Your task to perform on an android device: turn on javascript in the chrome app Image 0: 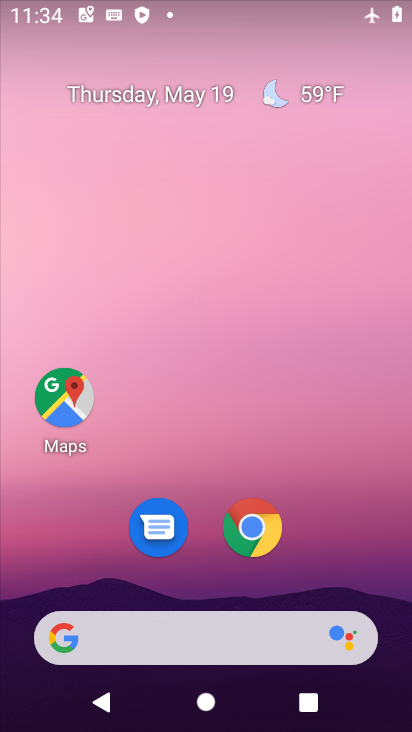
Step 0: drag from (400, 603) to (229, 41)
Your task to perform on an android device: turn on javascript in the chrome app Image 1: 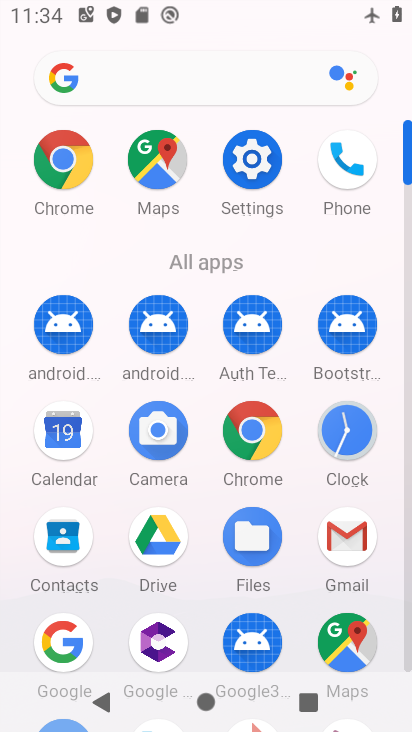
Step 1: click (47, 151)
Your task to perform on an android device: turn on javascript in the chrome app Image 2: 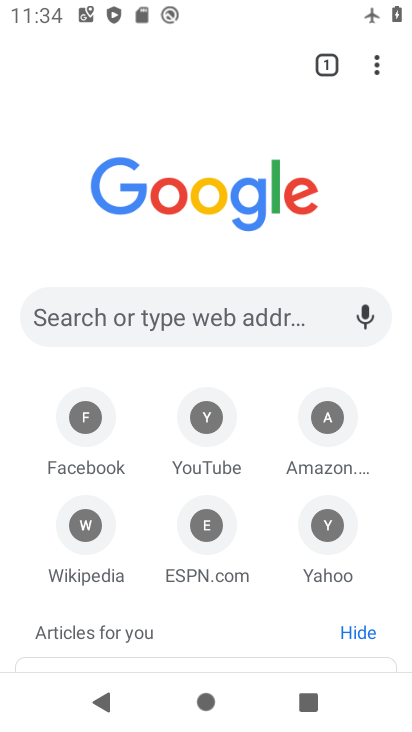
Step 2: click (377, 54)
Your task to perform on an android device: turn on javascript in the chrome app Image 3: 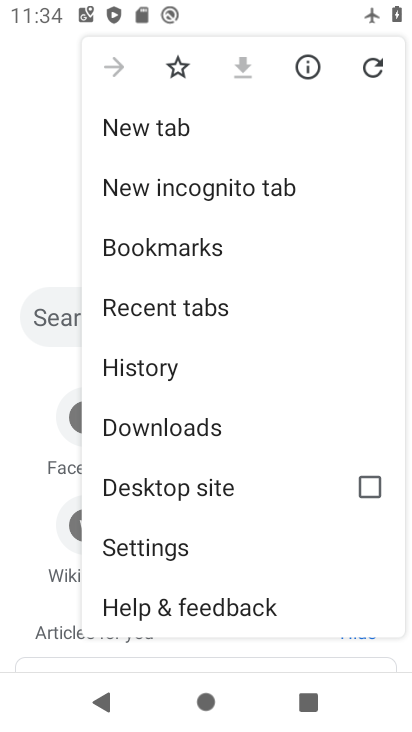
Step 3: click (230, 560)
Your task to perform on an android device: turn on javascript in the chrome app Image 4: 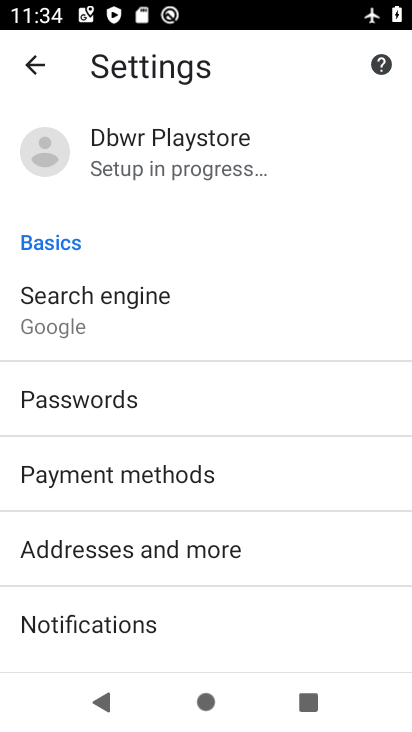
Step 4: drag from (248, 611) to (192, 109)
Your task to perform on an android device: turn on javascript in the chrome app Image 5: 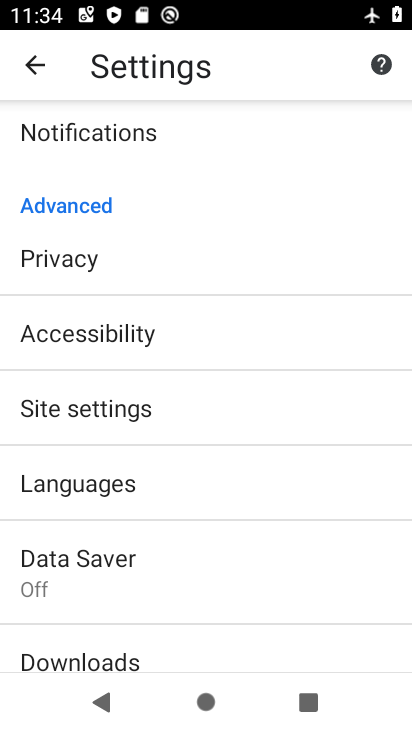
Step 5: click (232, 421)
Your task to perform on an android device: turn on javascript in the chrome app Image 6: 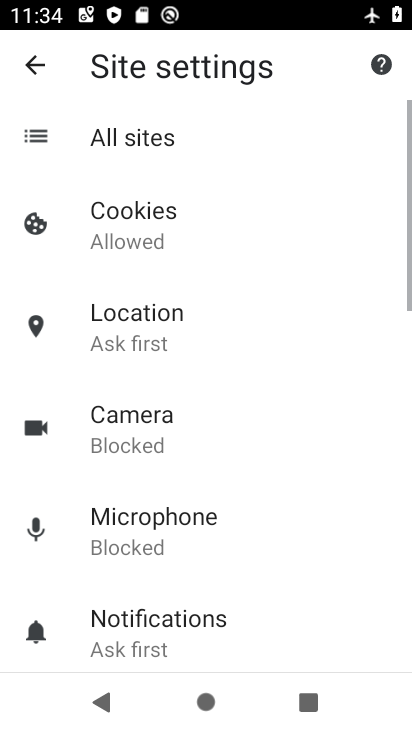
Step 6: drag from (271, 563) to (208, 160)
Your task to perform on an android device: turn on javascript in the chrome app Image 7: 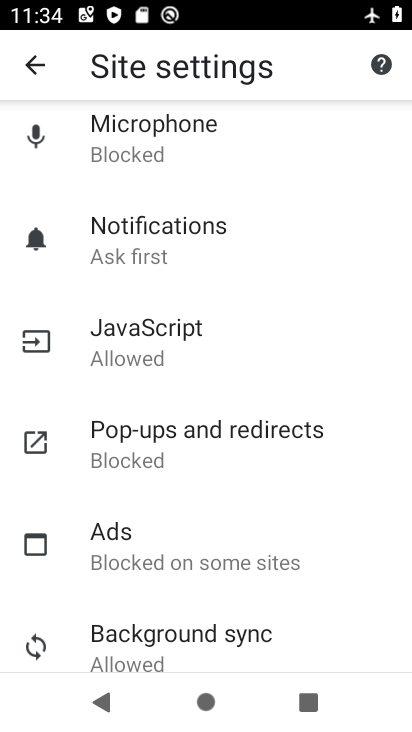
Step 7: click (237, 358)
Your task to perform on an android device: turn on javascript in the chrome app Image 8: 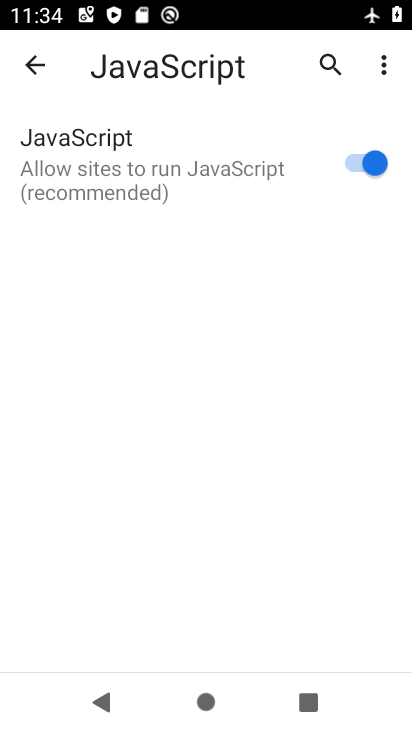
Step 8: task complete